Your task to perform on an android device: Find coffee shops on Maps Image 0: 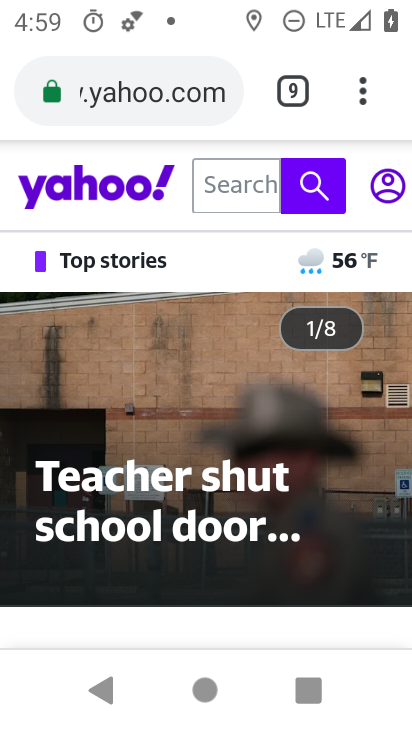
Step 0: press home button
Your task to perform on an android device: Find coffee shops on Maps Image 1: 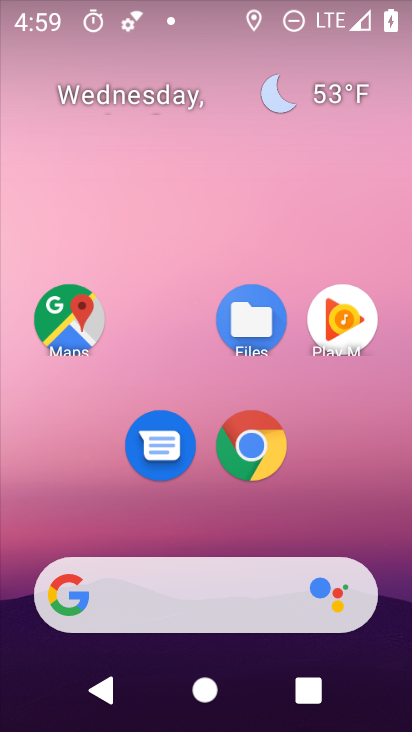
Step 1: click (48, 324)
Your task to perform on an android device: Find coffee shops on Maps Image 2: 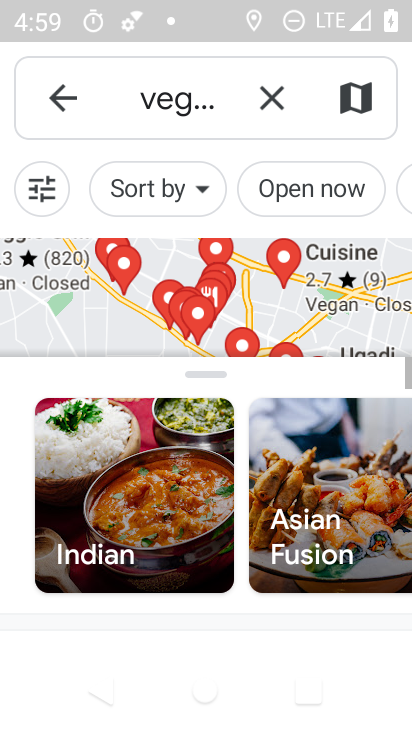
Step 2: click (260, 87)
Your task to perform on an android device: Find coffee shops on Maps Image 3: 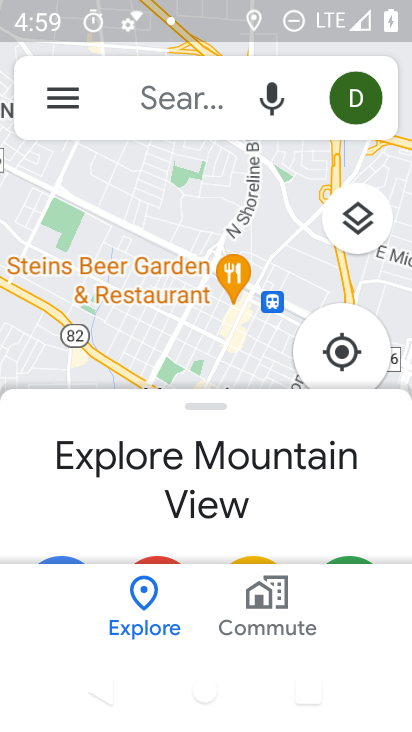
Step 3: click (140, 101)
Your task to perform on an android device: Find coffee shops on Maps Image 4: 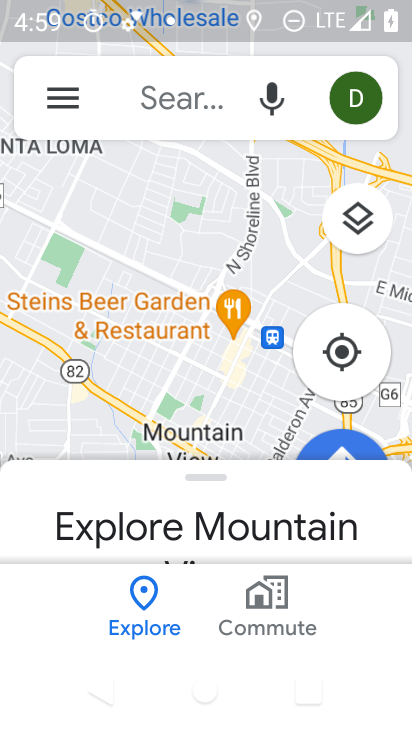
Step 4: click (140, 101)
Your task to perform on an android device: Find coffee shops on Maps Image 5: 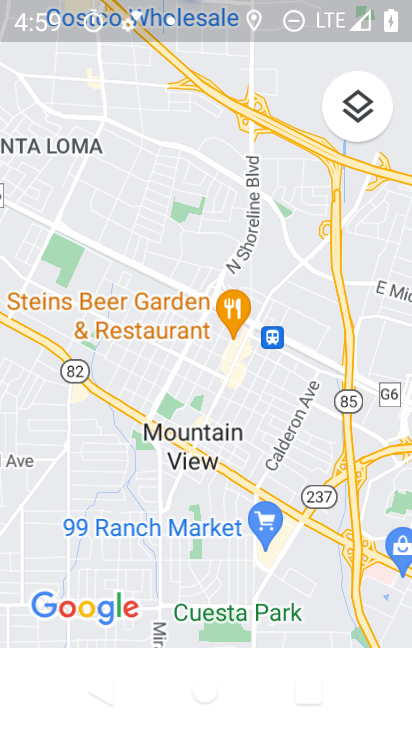
Step 5: drag from (254, 183) to (230, 443)
Your task to perform on an android device: Find coffee shops on Maps Image 6: 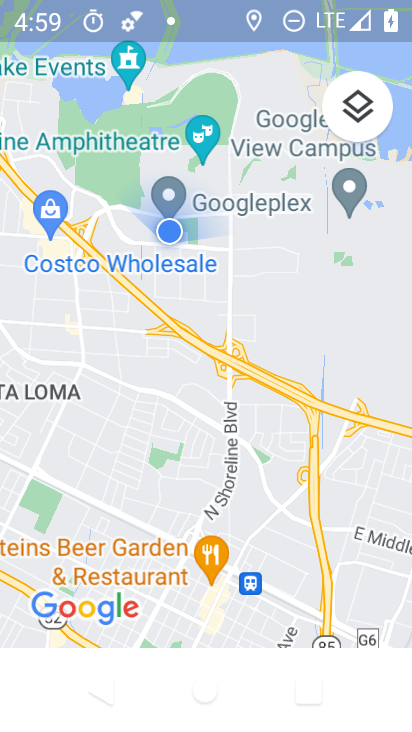
Step 6: drag from (167, 158) to (187, 512)
Your task to perform on an android device: Find coffee shops on Maps Image 7: 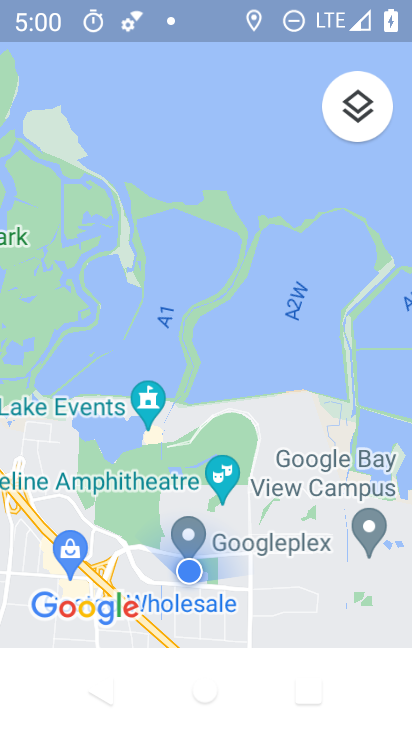
Step 7: drag from (168, 100) to (252, 546)
Your task to perform on an android device: Find coffee shops on Maps Image 8: 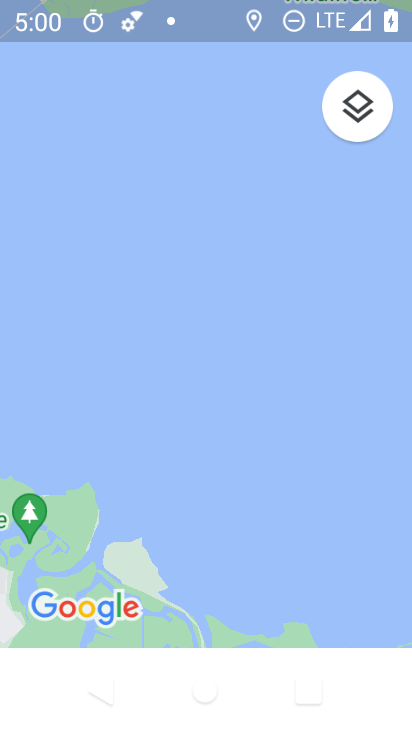
Step 8: press back button
Your task to perform on an android device: Find coffee shops on Maps Image 9: 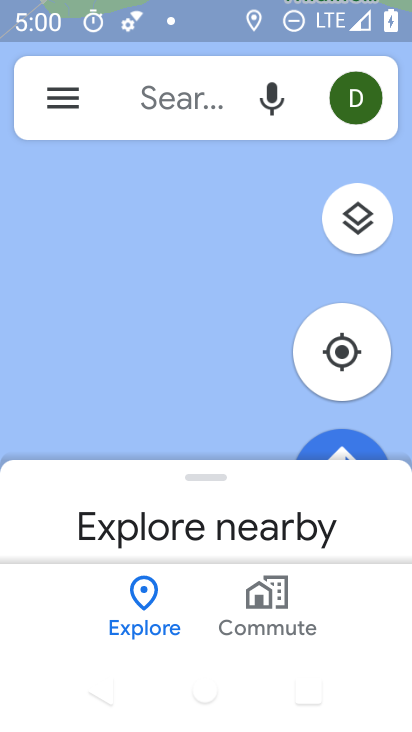
Step 9: press back button
Your task to perform on an android device: Find coffee shops on Maps Image 10: 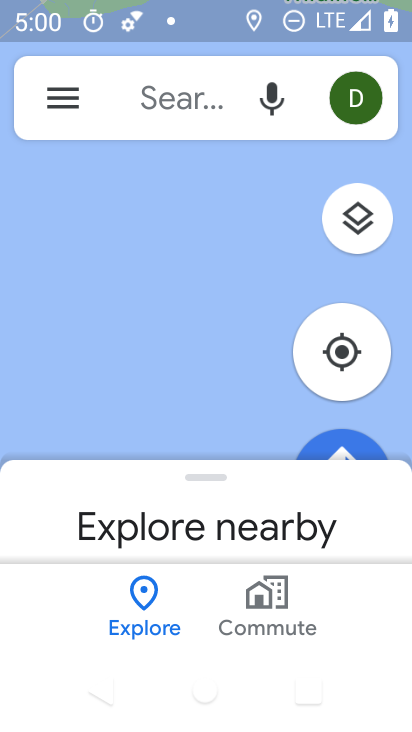
Step 10: press back button
Your task to perform on an android device: Find coffee shops on Maps Image 11: 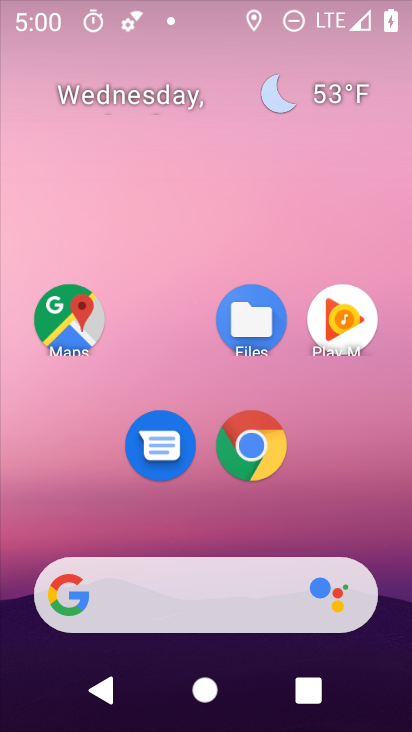
Step 11: click (204, 85)
Your task to perform on an android device: Find coffee shops on Maps Image 12: 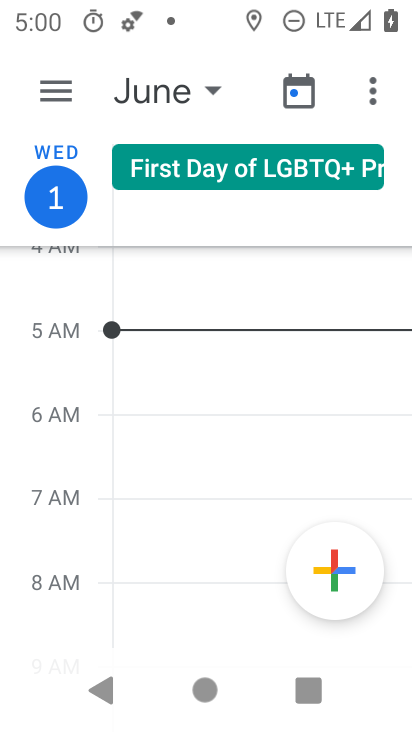
Step 12: press home button
Your task to perform on an android device: Find coffee shops on Maps Image 13: 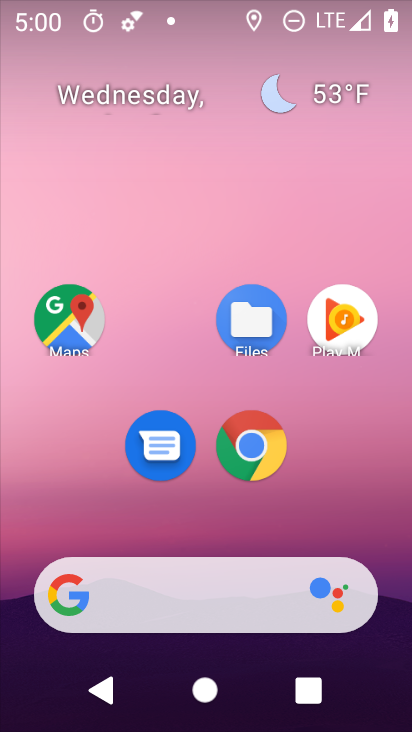
Step 13: click (71, 321)
Your task to perform on an android device: Find coffee shops on Maps Image 14: 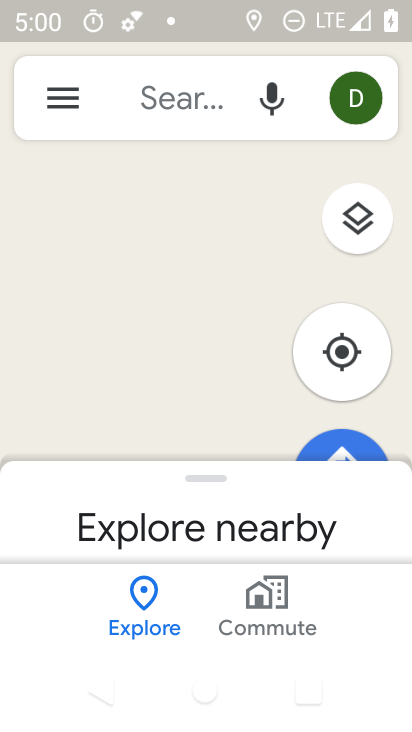
Step 14: click (106, 94)
Your task to perform on an android device: Find coffee shops on Maps Image 15: 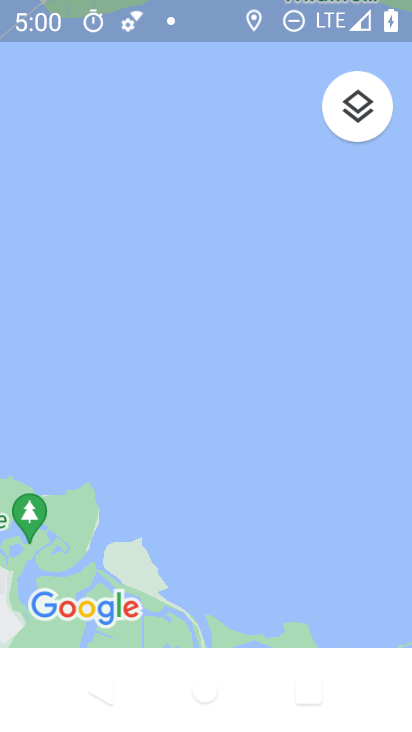
Step 15: drag from (343, 11) to (213, 583)
Your task to perform on an android device: Find coffee shops on Maps Image 16: 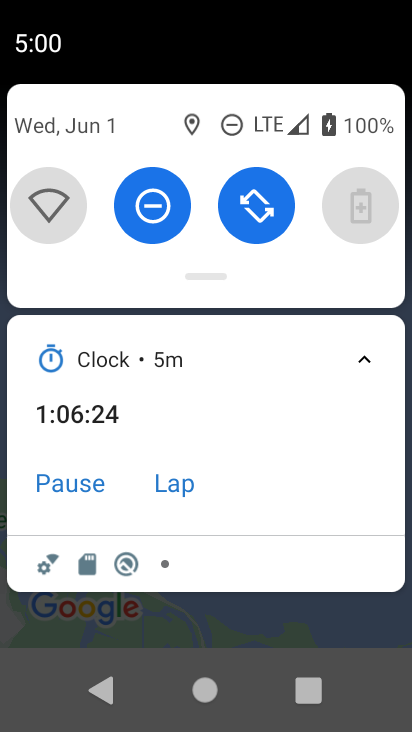
Step 16: click (54, 195)
Your task to perform on an android device: Find coffee shops on Maps Image 17: 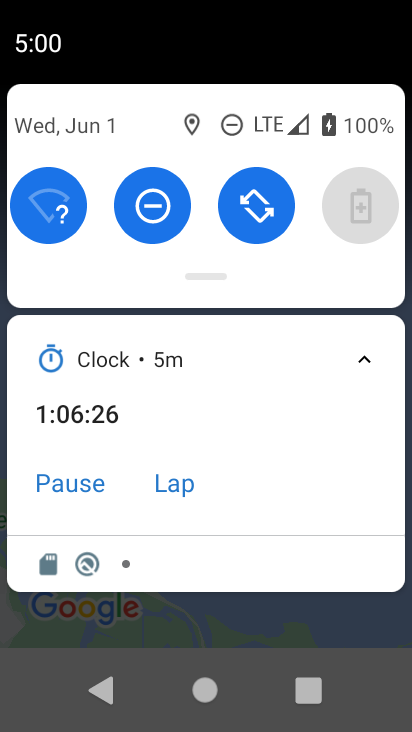
Step 17: drag from (259, 669) to (270, 326)
Your task to perform on an android device: Find coffee shops on Maps Image 18: 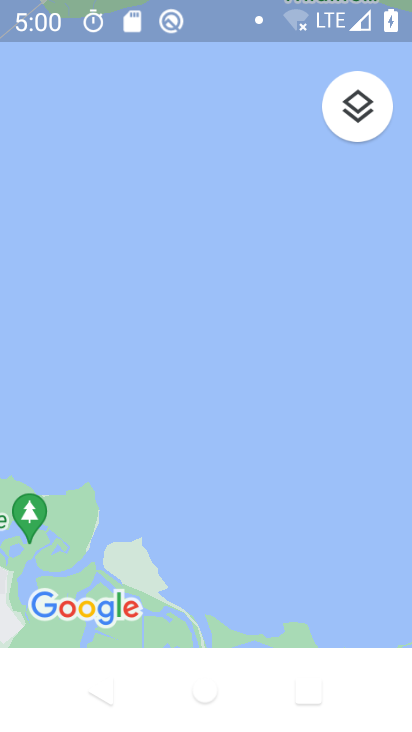
Step 18: press home button
Your task to perform on an android device: Find coffee shops on Maps Image 19: 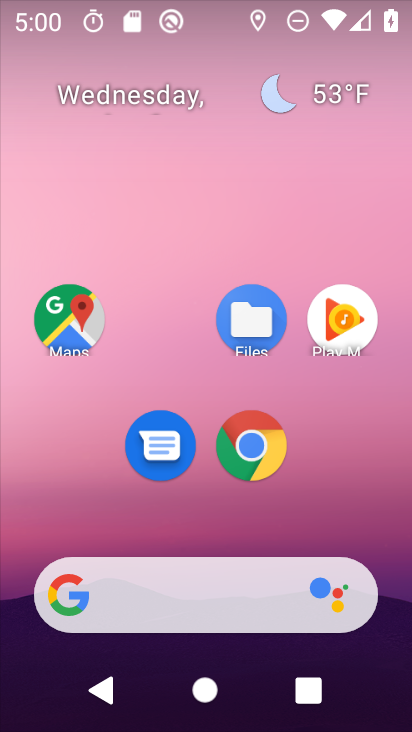
Step 19: click (86, 328)
Your task to perform on an android device: Find coffee shops on Maps Image 20: 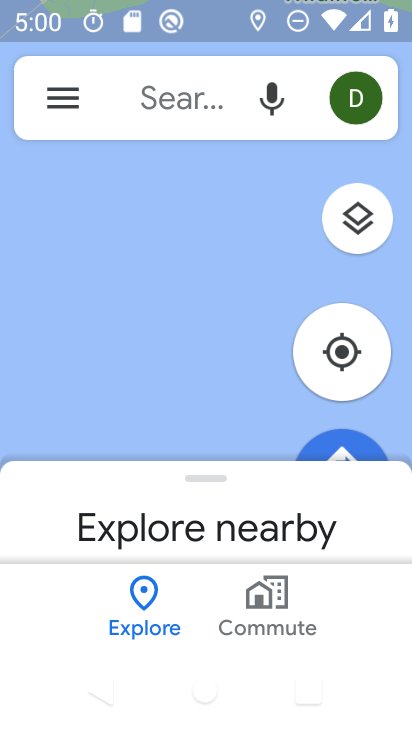
Step 20: click (135, 76)
Your task to perform on an android device: Find coffee shops on Maps Image 21: 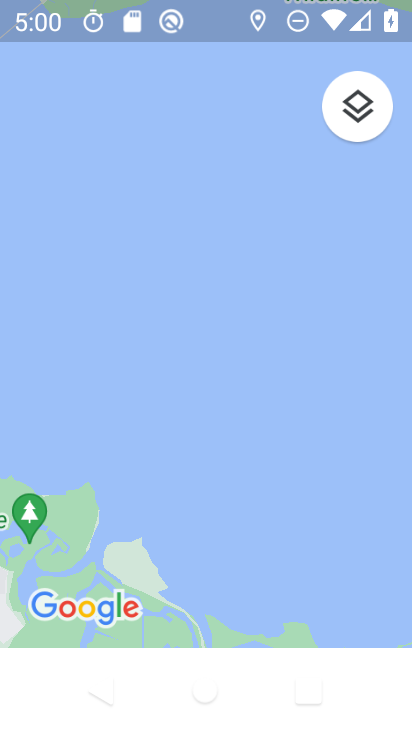
Step 21: task complete